Your task to perform on an android device: change text size in settings app Image 0: 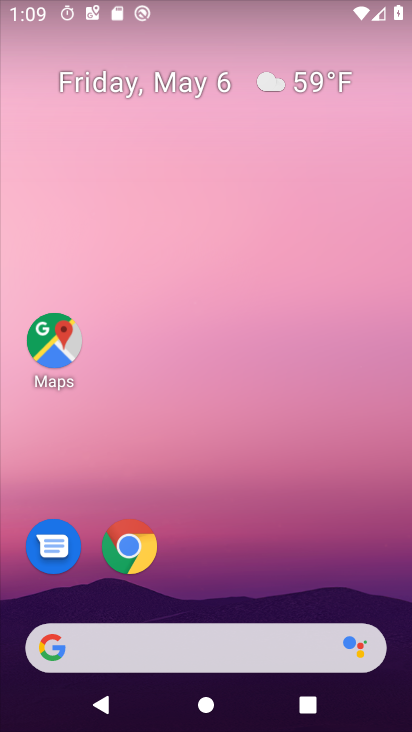
Step 0: drag from (250, 544) to (234, 75)
Your task to perform on an android device: change text size in settings app Image 1: 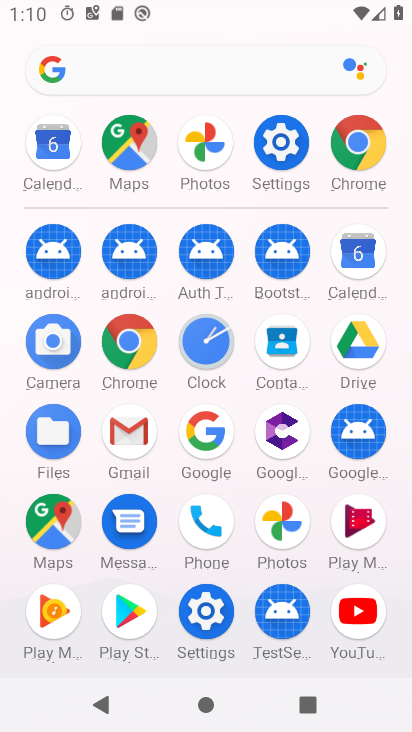
Step 1: click (283, 148)
Your task to perform on an android device: change text size in settings app Image 2: 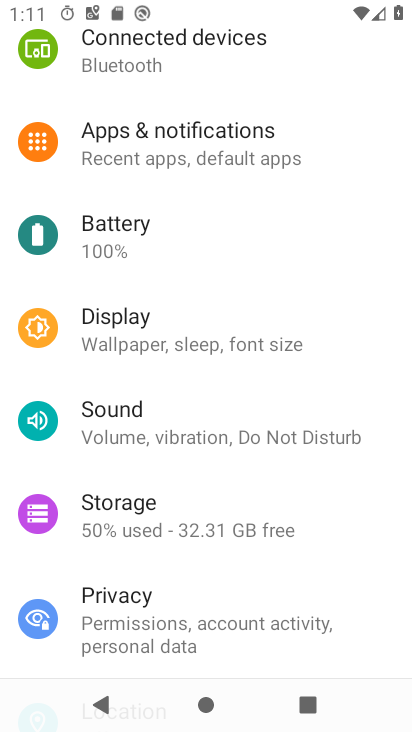
Step 2: click (194, 346)
Your task to perform on an android device: change text size in settings app Image 3: 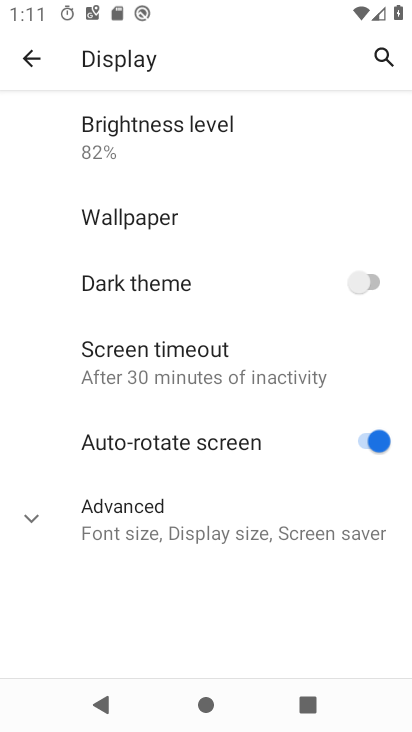
Step 3: click (207, 525)
Your task to perform on an android device: change text size in settings app Image 4: 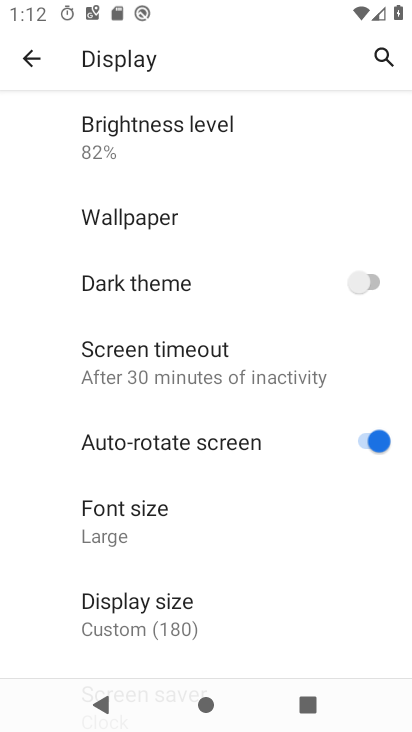
Step 4: click (143, 525)
Your task to perform on an android device: change text size in settings app Image 5: 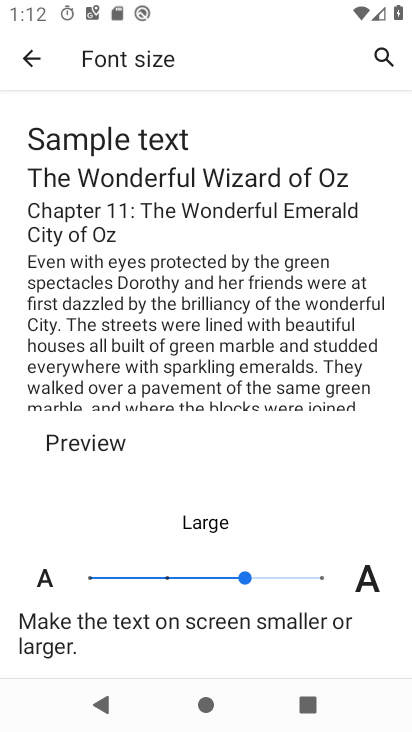
Step 5: click (165, 577)
Your task to perform on an android device: change text size in settings app Image 6: 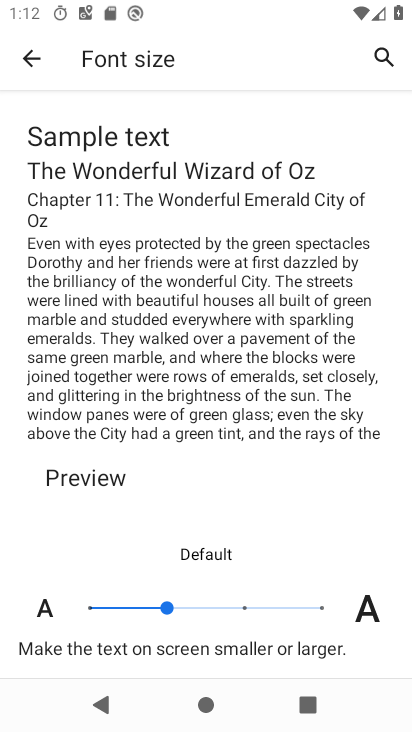
Step 6: task complete